Your task to perform on an android device: turn off notifications settings in the gmail app Image 0: 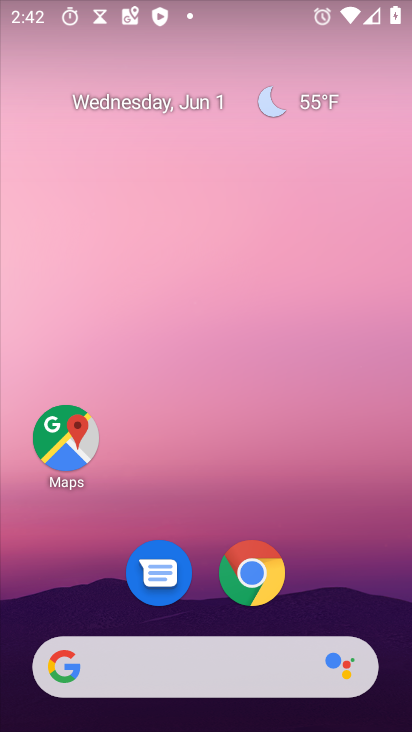
Step 0: drag from (391, 600) to (389, 26)
Your task to perform on an android device: turn off notifications settings in the gmail app Image 1: 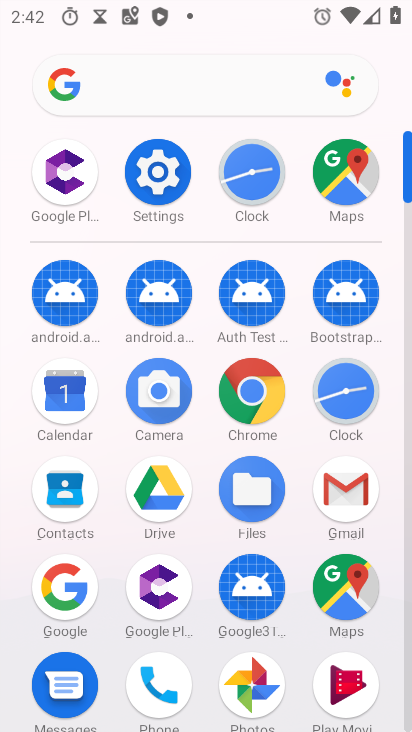
Step 1: click (367, 504)
Your task to perform on an android device: turn off notifications settings in the gmail app Image 2: 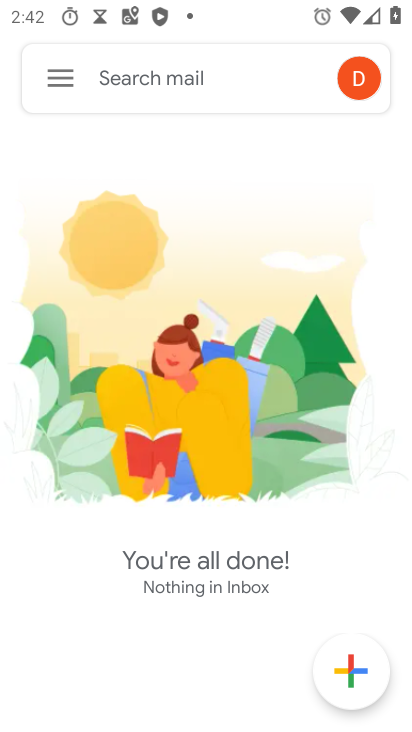
Step 2: click (45, 77)
Your task to perform on an android device: turn off notifications settings in the gmail app Image 3: 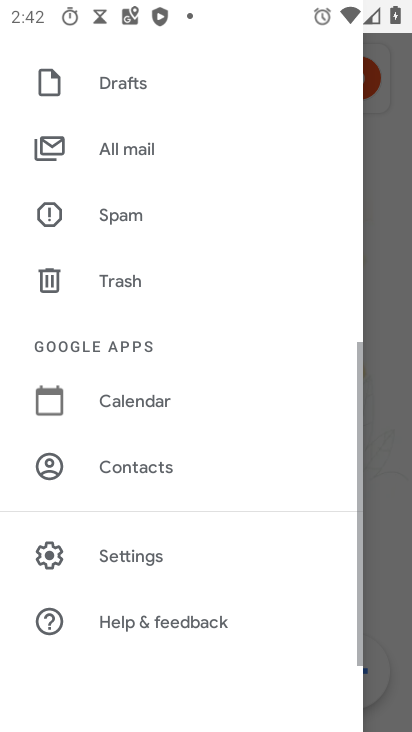
Step 3: click (101, 565)
Your task to perform on an android device: turn off notifications settings in the gmail app Image 4: 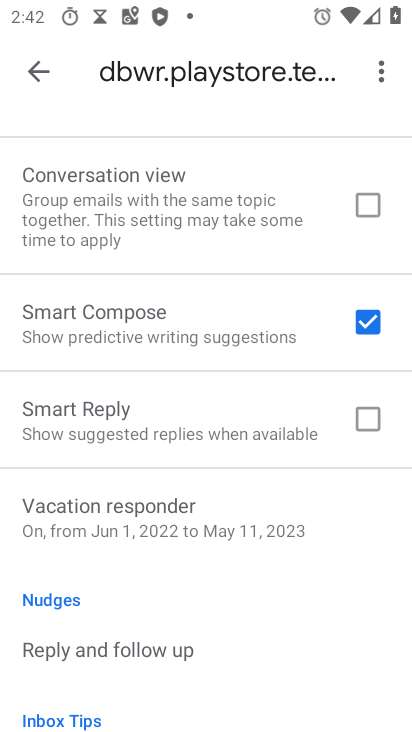
Step 4: drag from (212, 214) to (270, 581)
Your task to perform on an android device: turn off notifications settings in the gmail app Image 5: 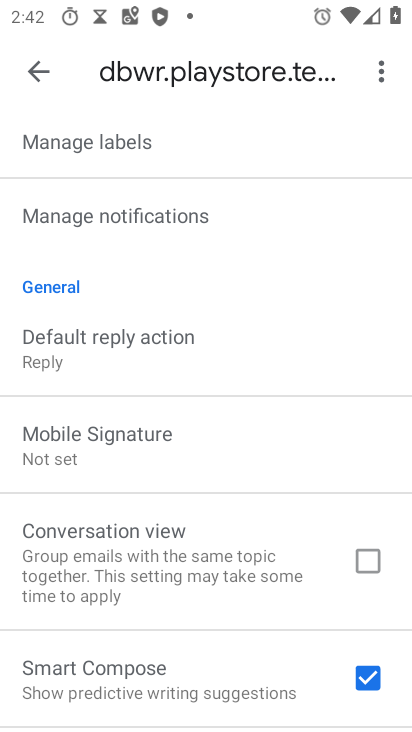
Step 5: drag from (301, 191) to (303, 639)
Your task to perform on an android device: turn off notifications settings in the gmail app Image 6: 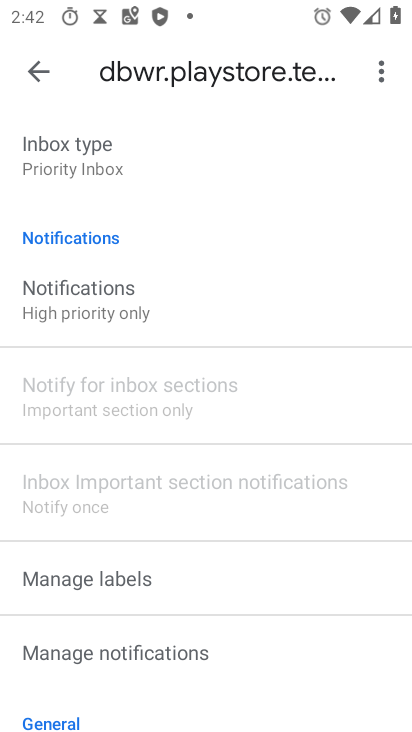
Step 6: click (107, 292)
Your task to perform on an android device: turn off notifications settings in the gmail app Image 7: 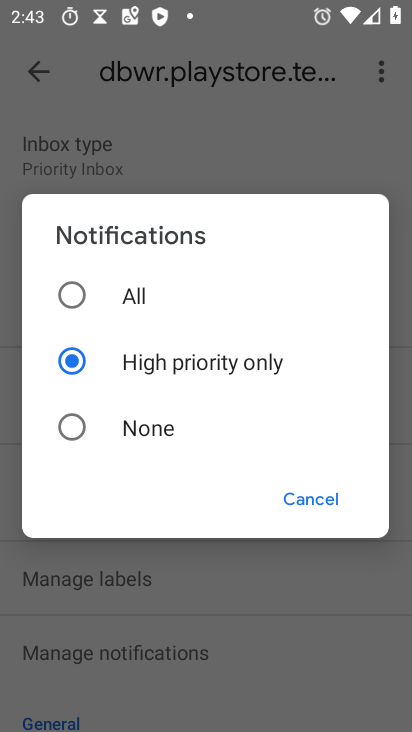
Step 7: click (114, 432)
Your task to perform on an android device: turn off notifications settings in the gmail app Image 8: 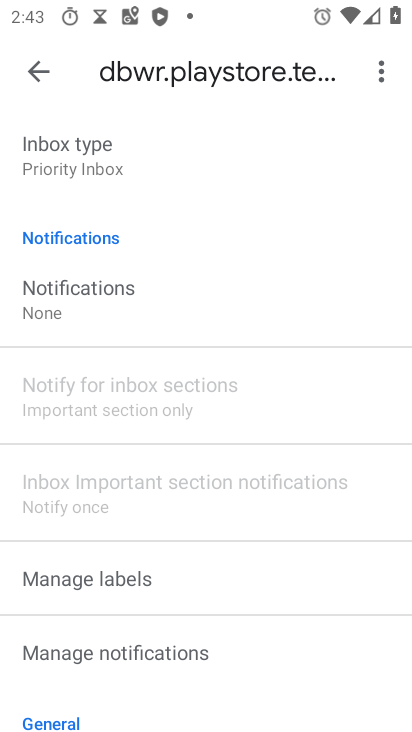
Step 8: task complete